Your task to perform on an android device: add a label to a message in the gmail app Image 0: 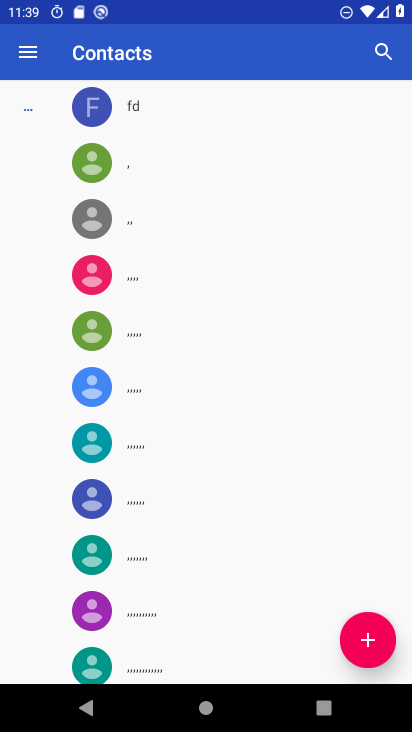
Step 0: press home button
Your task to perform on an android device: add a label to a message in the gmail app Image 1: 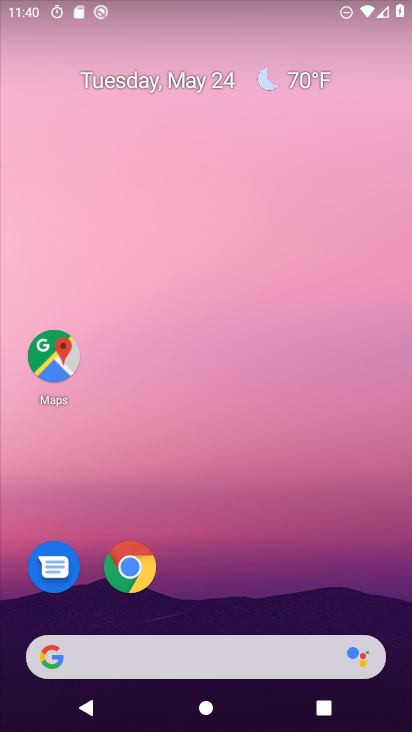
Step 1: click (330, 250)
Your task to perform on an android device: add a label to a message in the gmail app Image 2: 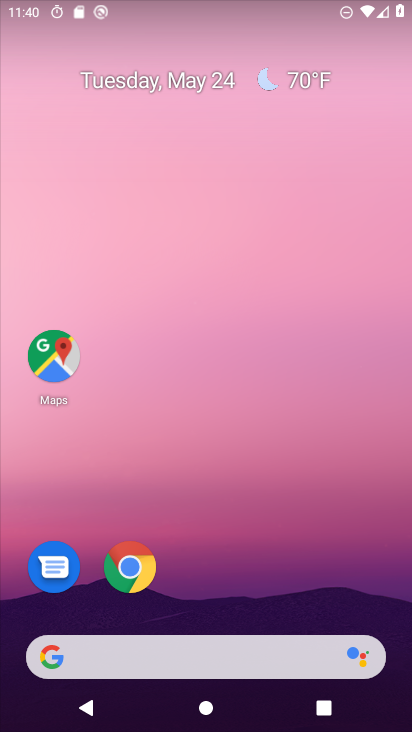
Step 2: drag from (395, 685) to (327, 326)
Your task to perform on an android device: add a label to a message in the gmail app Image 3: 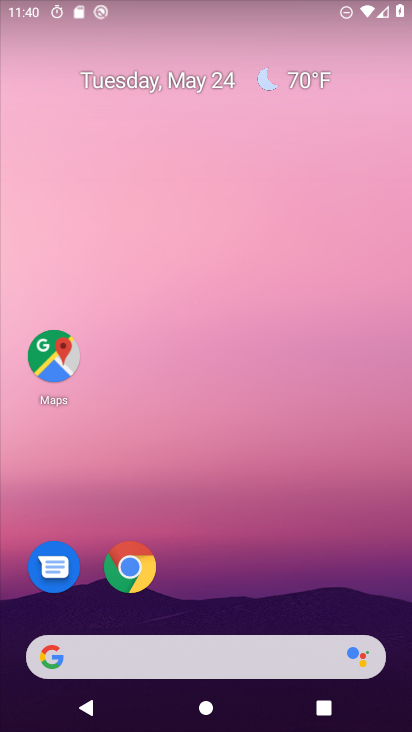
Step 3: drag from (399, 684) to (323, 182)
Your task to perform on an android device: add a label to a message in the gmail app Image 4: 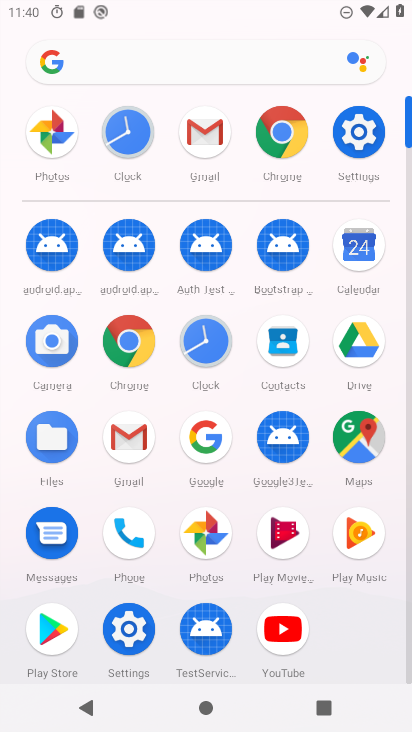
Step 4: click (127, 439)
Your task to perform on an android device: add a label to a message in the gmail app Image 5: 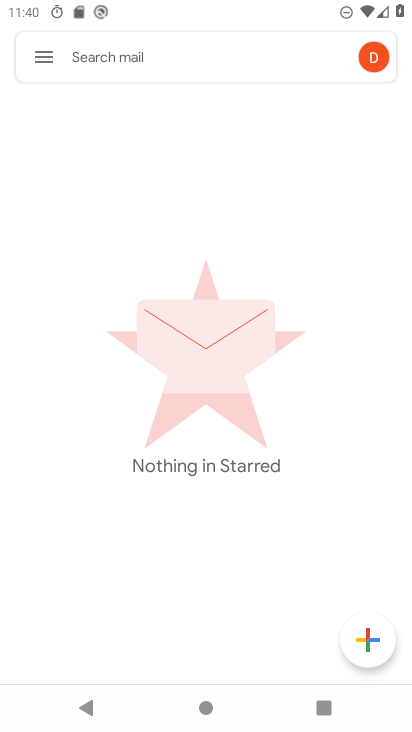
Step 5: click (44, 58)
Your task to perform on an android device: add a label to a message in the gmail app Image 6: 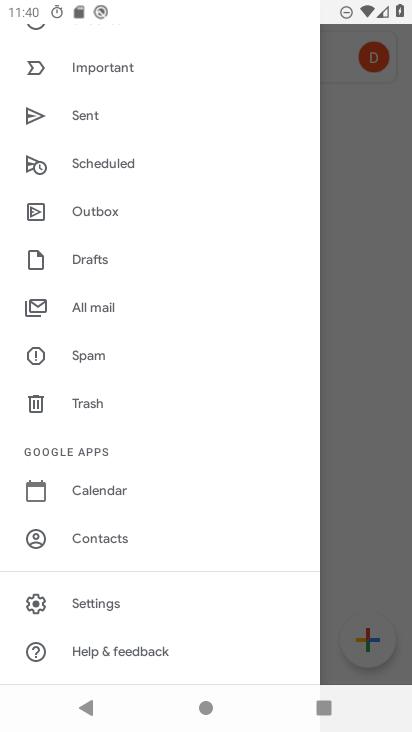
Step 6: drag from (218, 85) to (270, 563)
Your task to perform on an android device: add a label to a message in the gmail app Image 7: 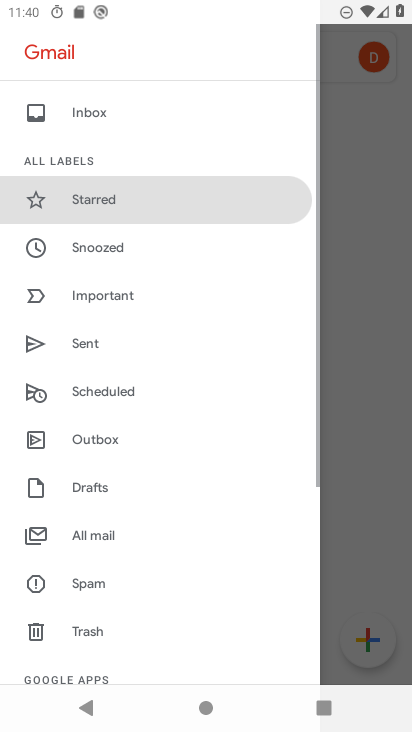
Step 7: click (83, 109)
Your task to perform on an android device: add a label to a message in the gmail app Image 8: 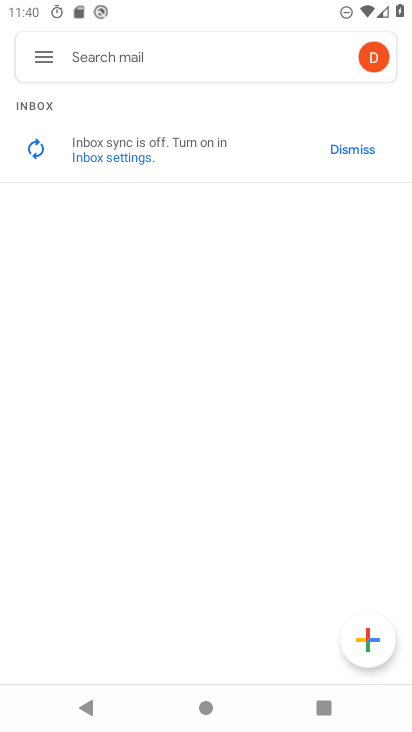
Step 8: task complete